Your task to perform on an android device: turn off data saver in the chrome app Image 0: 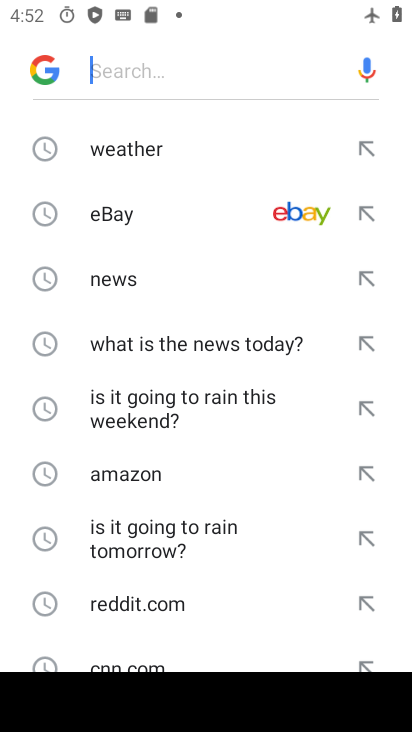
Step 0: press home button
Your task to perform on an android device: turn off data saver in the chrome app Image 1: 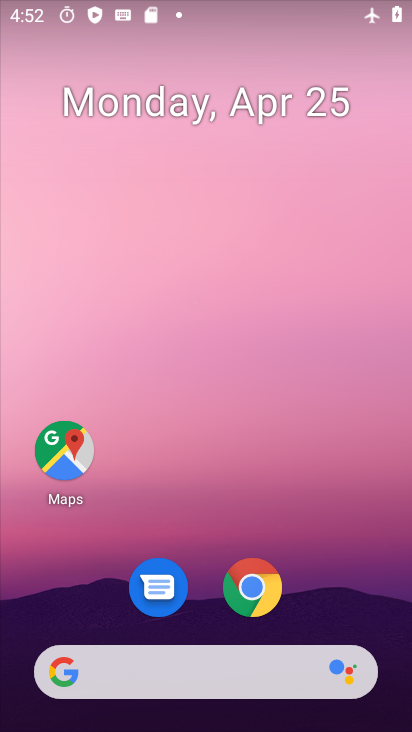
Step 1: drag from (324, 512) to (314, 127)
Your task to perform on an android device: turn off data saver in the chrome app Image 2: 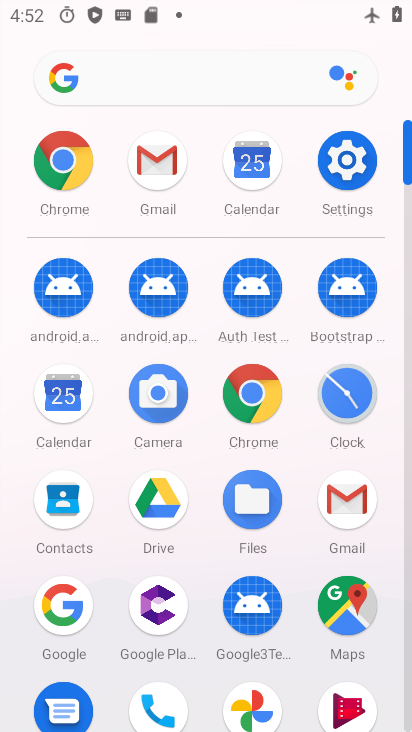
Step 2: click (257, 399)
Your task to perform on an android device: turn off data saver in the chrome app Image 3: 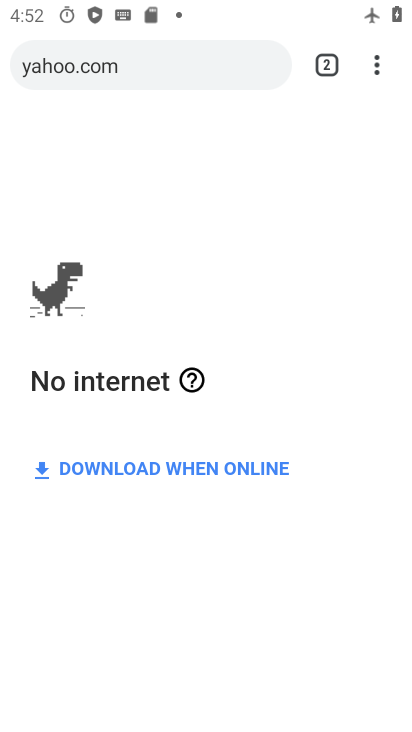
Step 3: drag from (383, 62) to (178, 636)
Your task to perform on an android device: turn off data saver in the chrome app Image 4: 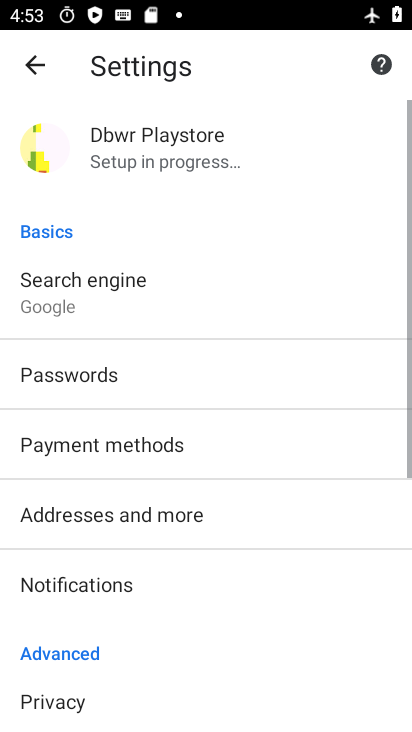
Step 4: drag from (189, 619) to (266, 0)
Your task to perform on an android device: turn off data saver in the chrome app Image 5: 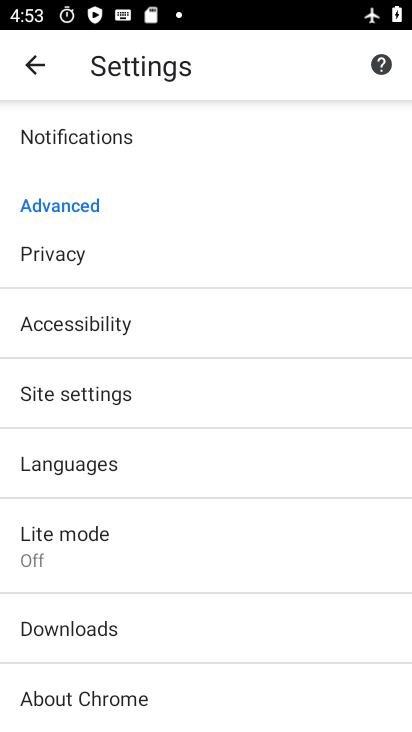
Step 5: click (126, 562)
Your task to perform on an android device: turn off data saver in the chrome app Image 6: 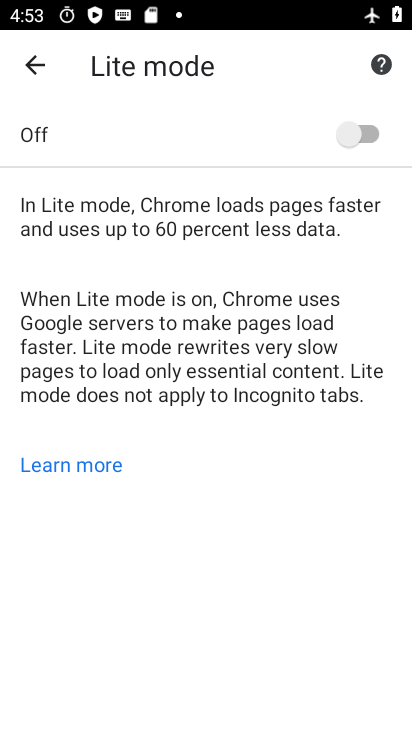
Step 6: task complete